Your task to perform on an android device: Clear all items from cart on costco. Search for "razer thresher" on costco, select the first entry, add it to the cart, then select checkout. Image 0: 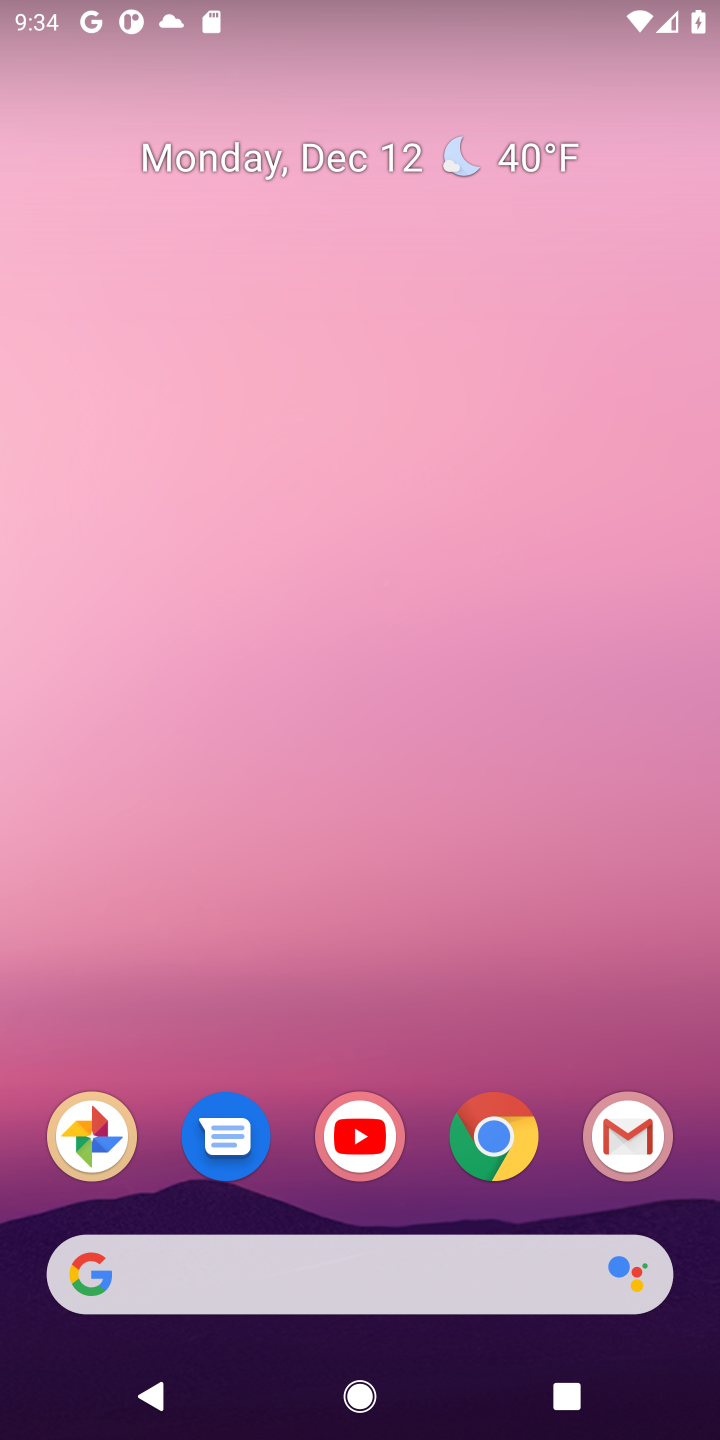
Step 0: click (479, 1147)
Your task to perform on an android device: Clear all items from cart on costco. Search for "razer thresher" on costco, select the first entry, add it to the cart, then select checkout. Image 1: 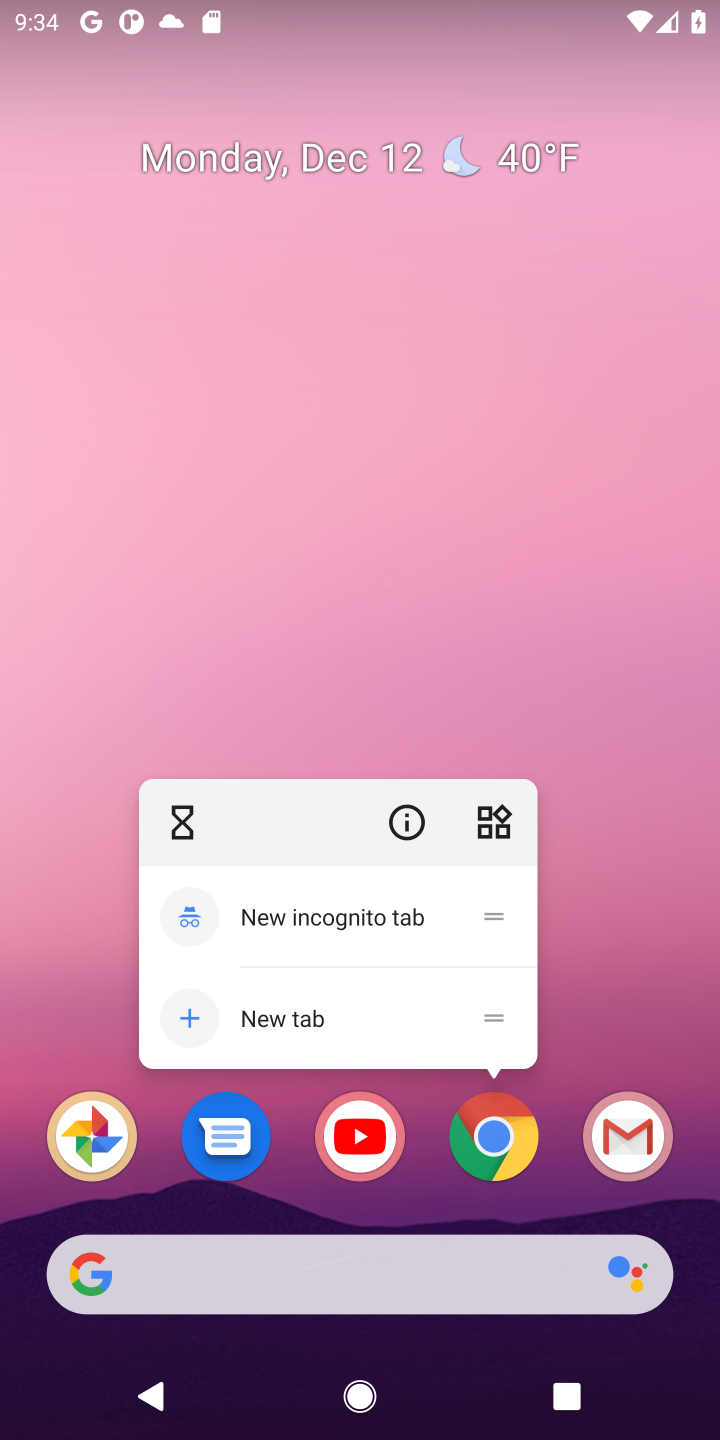
Step 1: click (486, 1145)
Your task to perform on an android device: Clear all items from cart on costco. Search for "razer thresher" on costco, select the first entry, add it to the cart, then select checkout. Image 2: 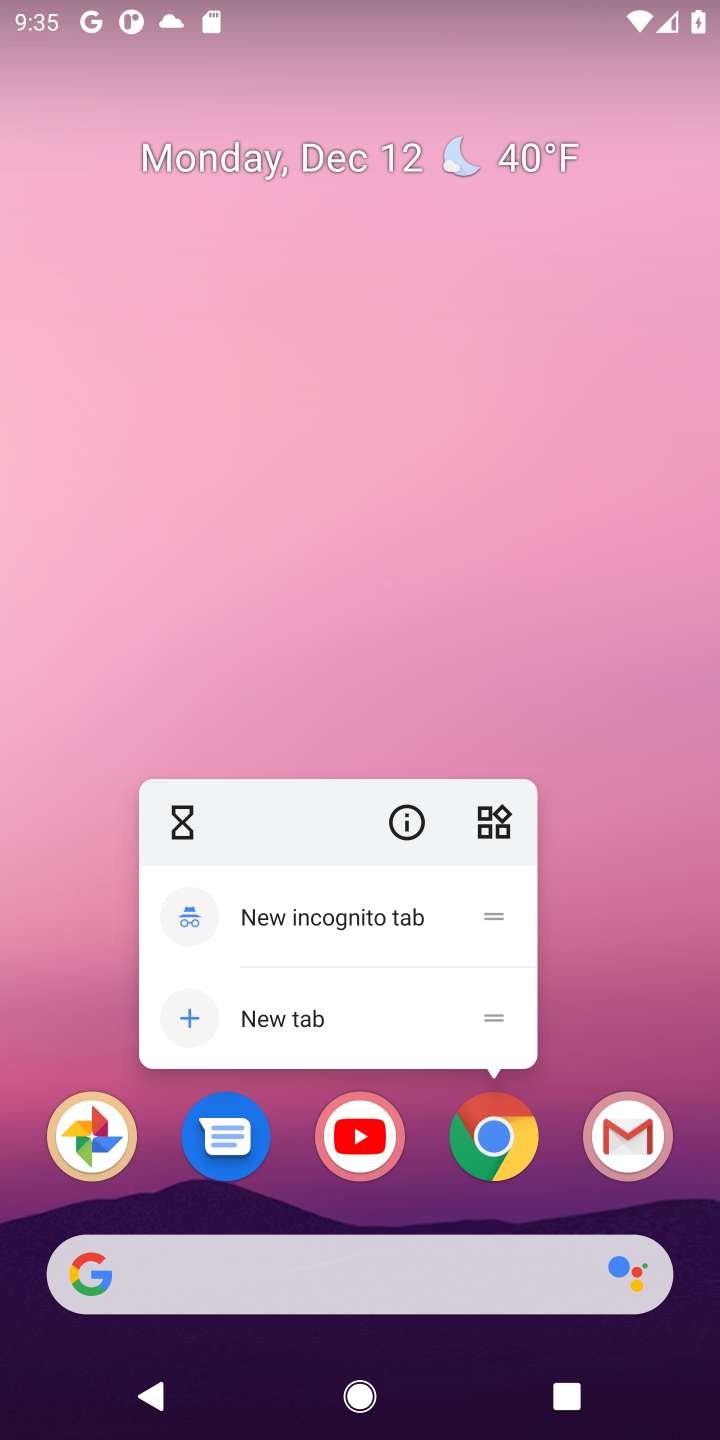
Step 2: click (494, 1146)
Your task to perform on an android device: Clear all items from cart on costco. Search for "razer thresher" on costco, select the first entry, add it to the cart, then select checkout. Image 3: 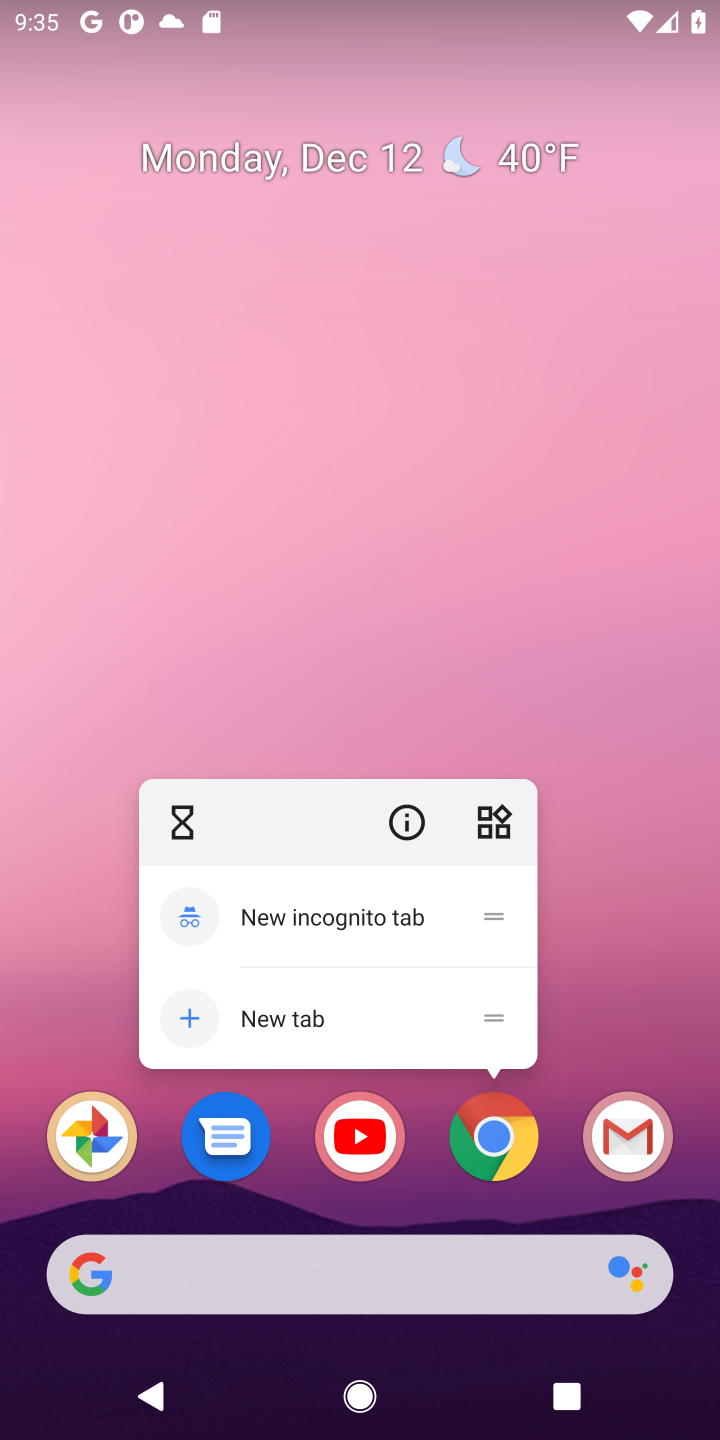
Step 3: click (498, 1143)
Your task to perform on an android device: Clear all items from cart on costco. Search for "razer thresher" on costco, select the first entry, add it to the cart, then select checkout. Image 4: 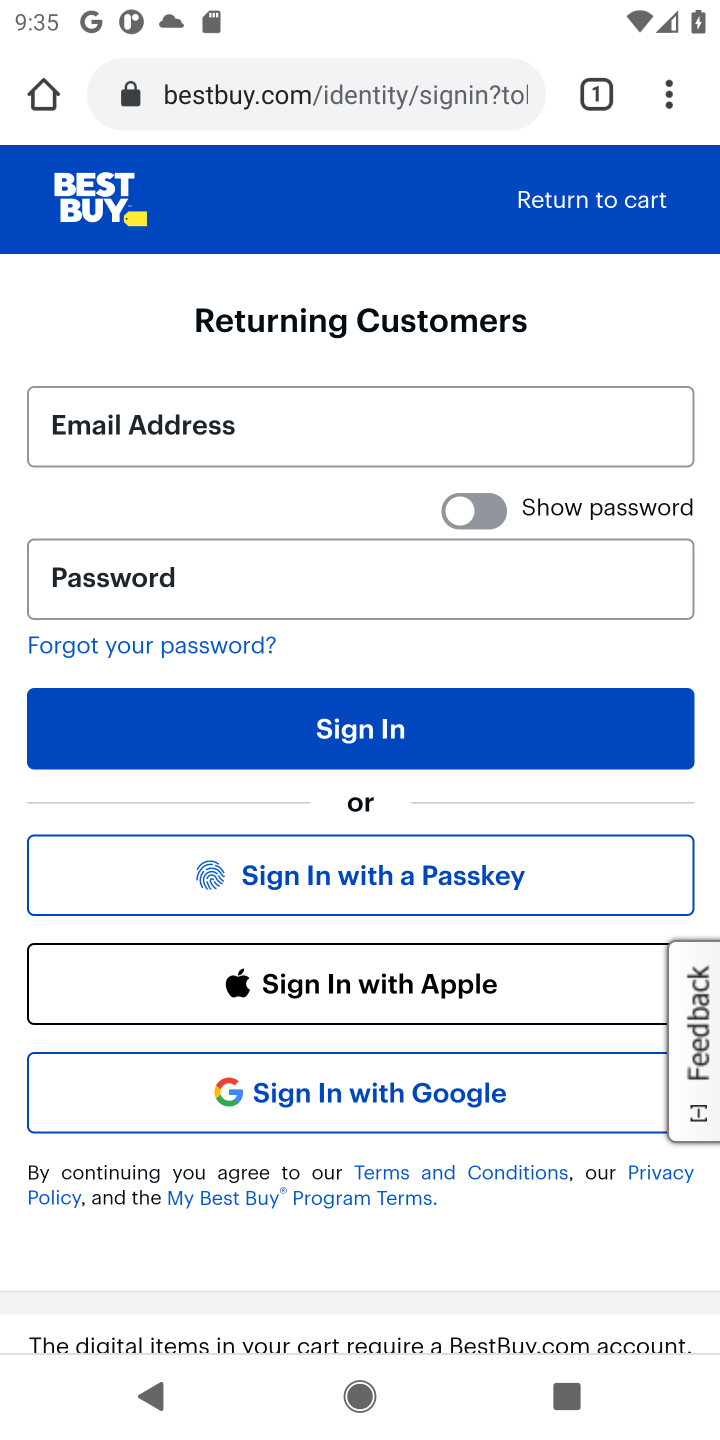
Step 4: click (316, 92)
Your task to perform on an android device: Clear all items from cart on costco. Search for "razer thresher" on costco, select the first entry, add it to the cart, then select checkout. Image 5: 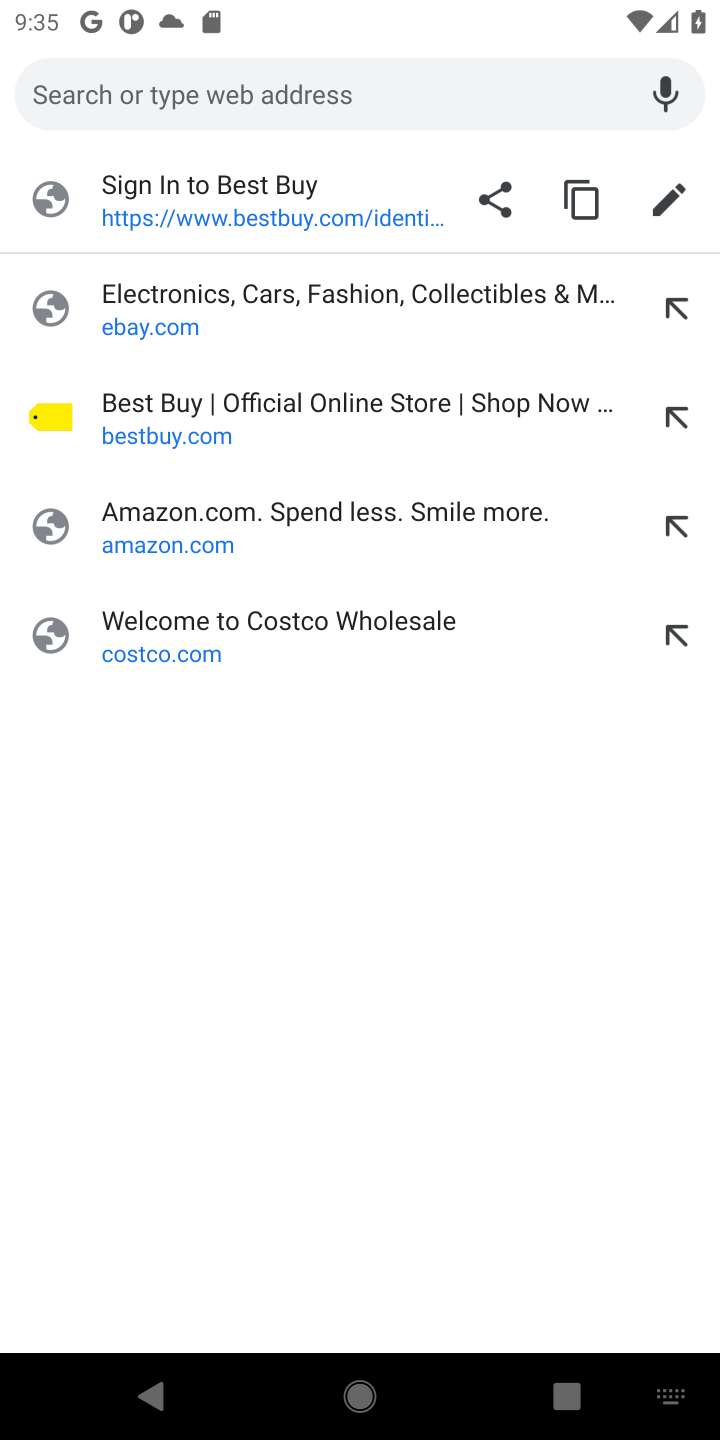
Step 5: click (131, 636)
Your task to perform on an android device: Clear all items from cart on costco. Search for "razer thresher" on costco, select the first entry, add it to the cart, then select checkout. Image 6: 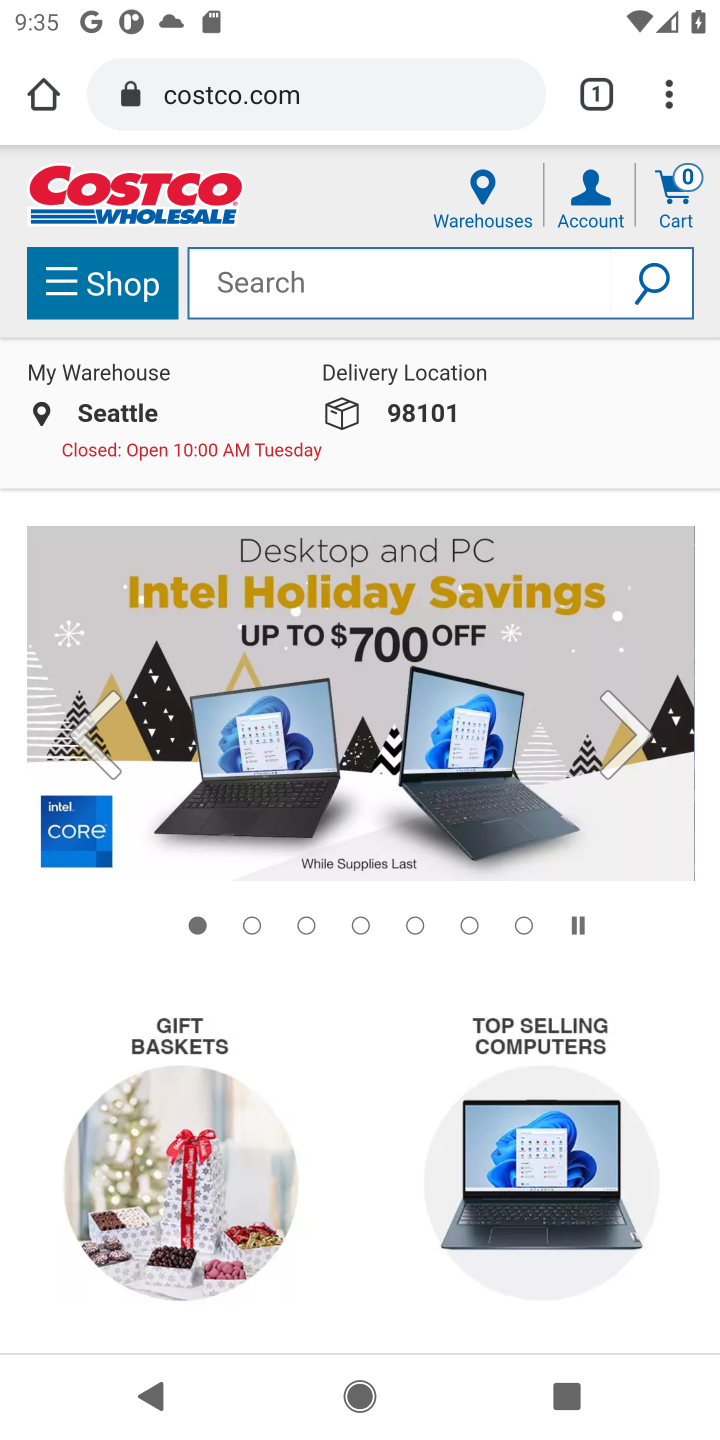
Step 6: click (677, 207)
Your task to perform on an android device: Clear all items from cart on costco. Search for "razer thresher" on costco, select the first entry, add it to the cart, then select checkout. Image 7: 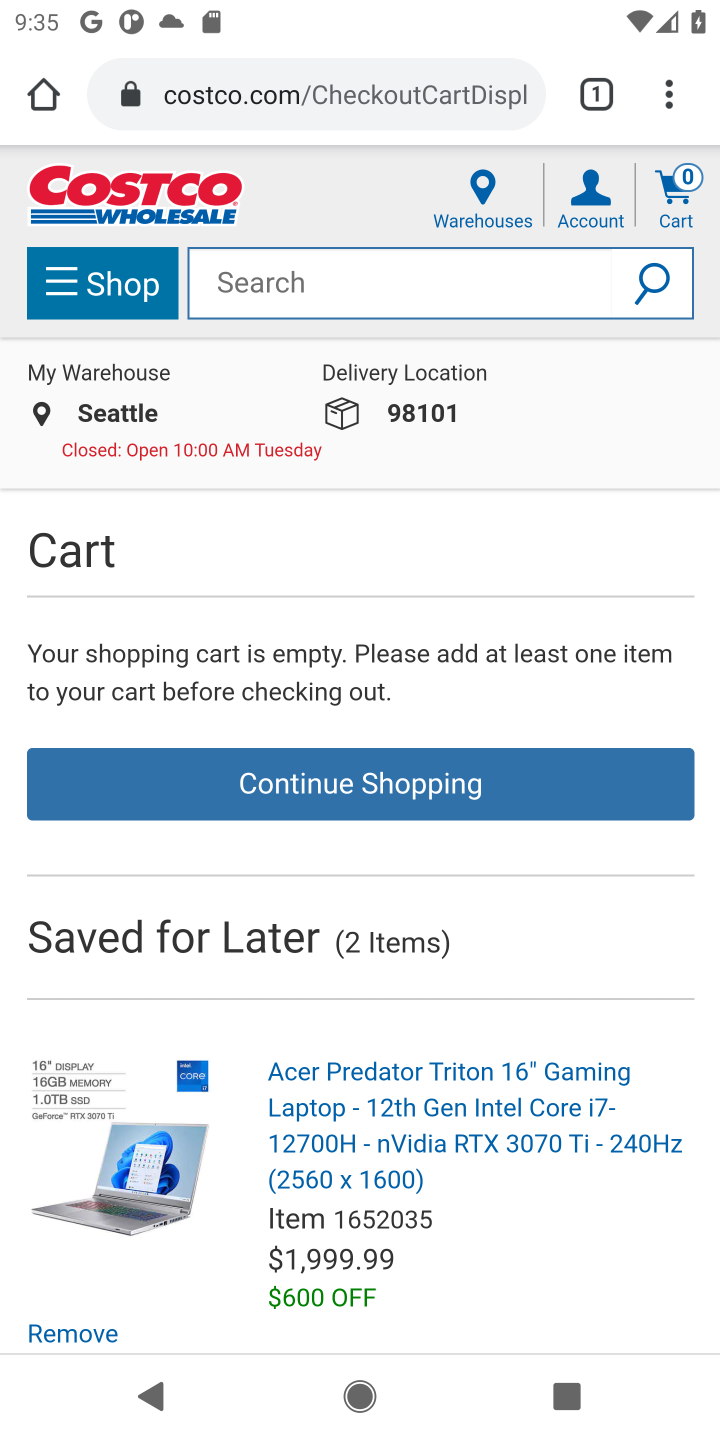
Step 7: click (232, 294)
Your task to perform on an android device: Clear all items from cart on costco. Search for "razer thresher" on costco, select the first entry, add it to the cart, then select checkout. Image 8: 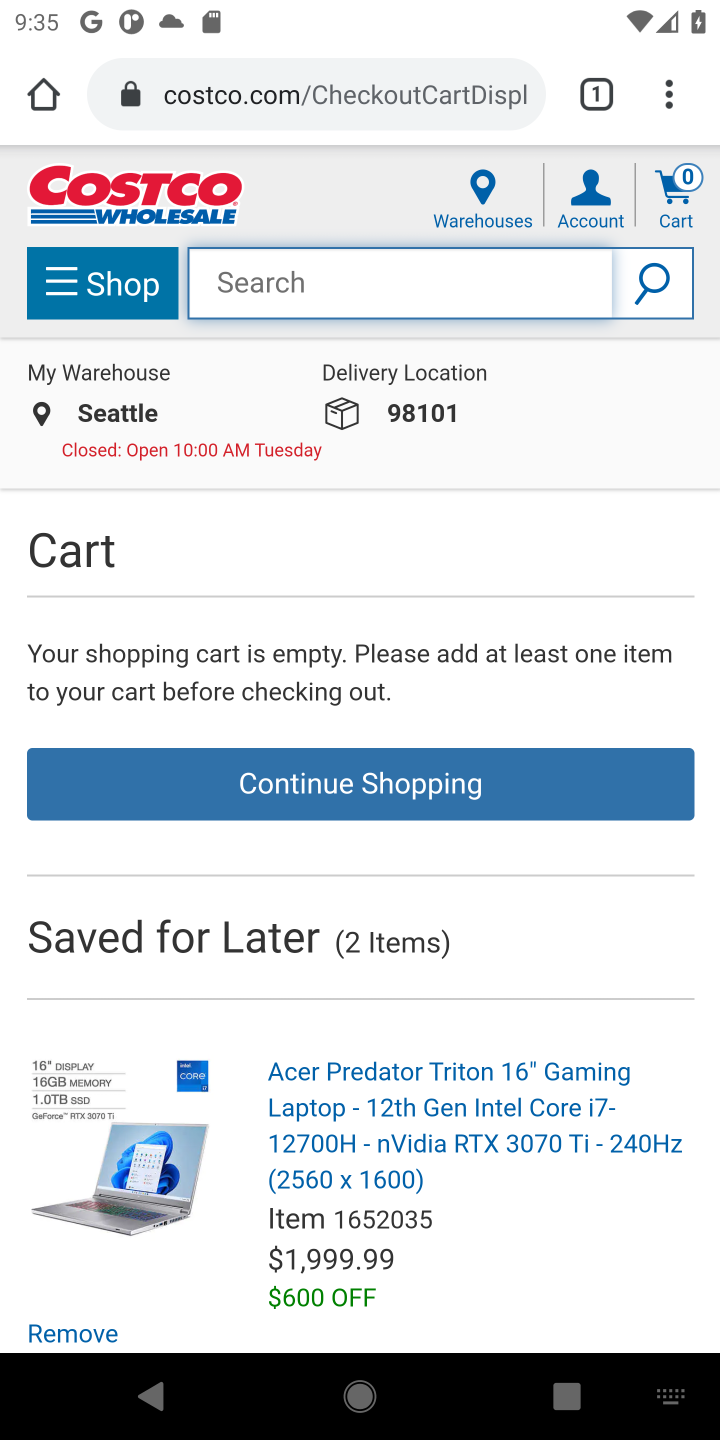
Step 8: type "razer thresher"
Your task to perform on an android device: Clear all items from cart on costco. Search for "razer thresher" on costco, select the first entry, add it to the cart, then select checkout. Image 9: 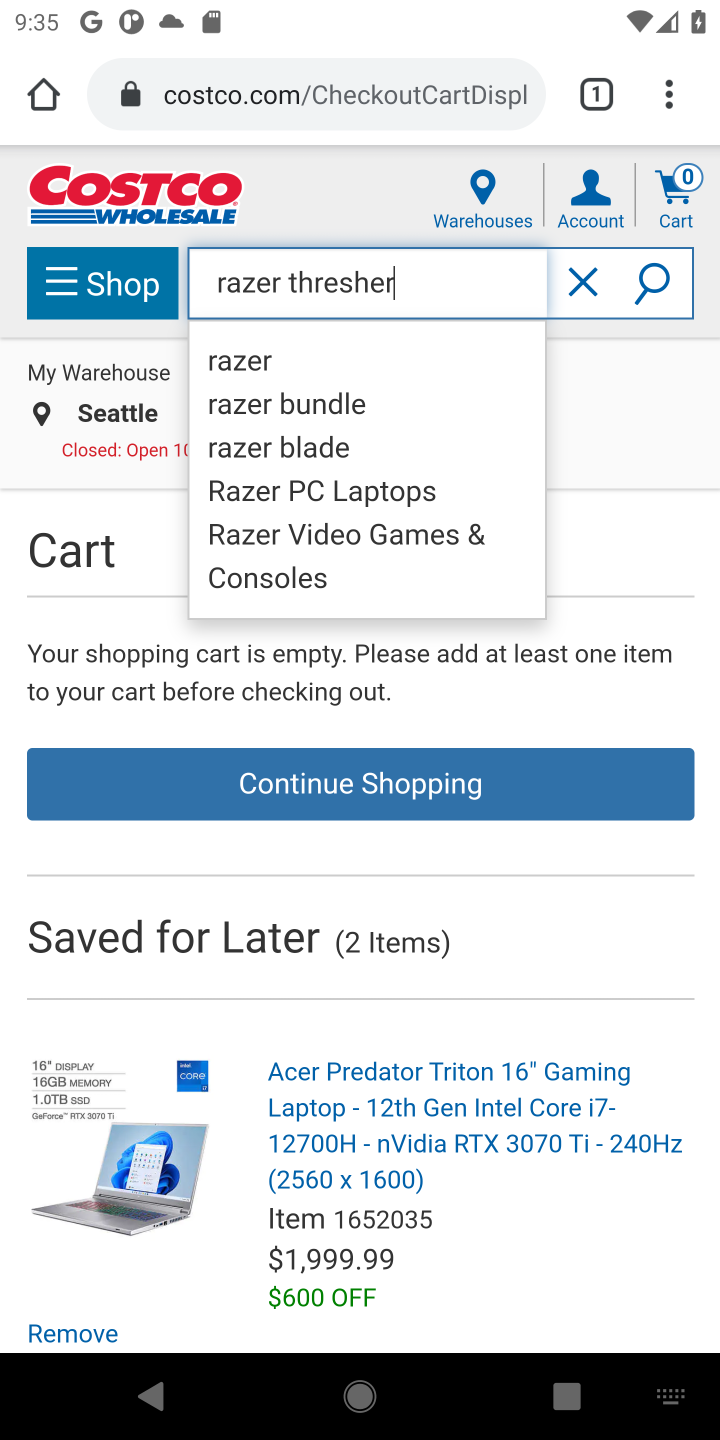
Step 9: click (622, 263)
Your task to perform on an android device: Clear all items from cart on costco. Search for "razer thresher" on costco, select the first entry, add it to the cart, then select checkout. Image 10: 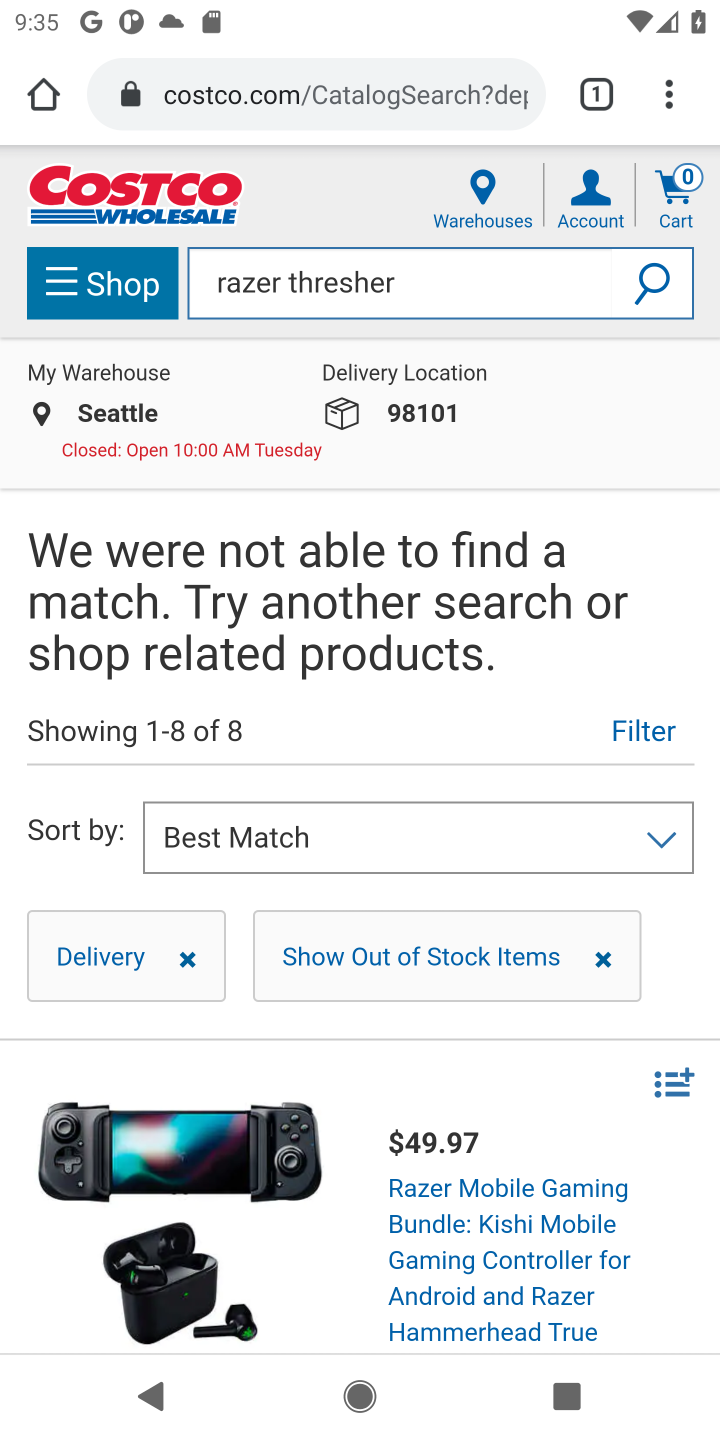
Step 10: task complete